Your task to perform on an android device: Open the calendar and show me this week's events? Image 0: 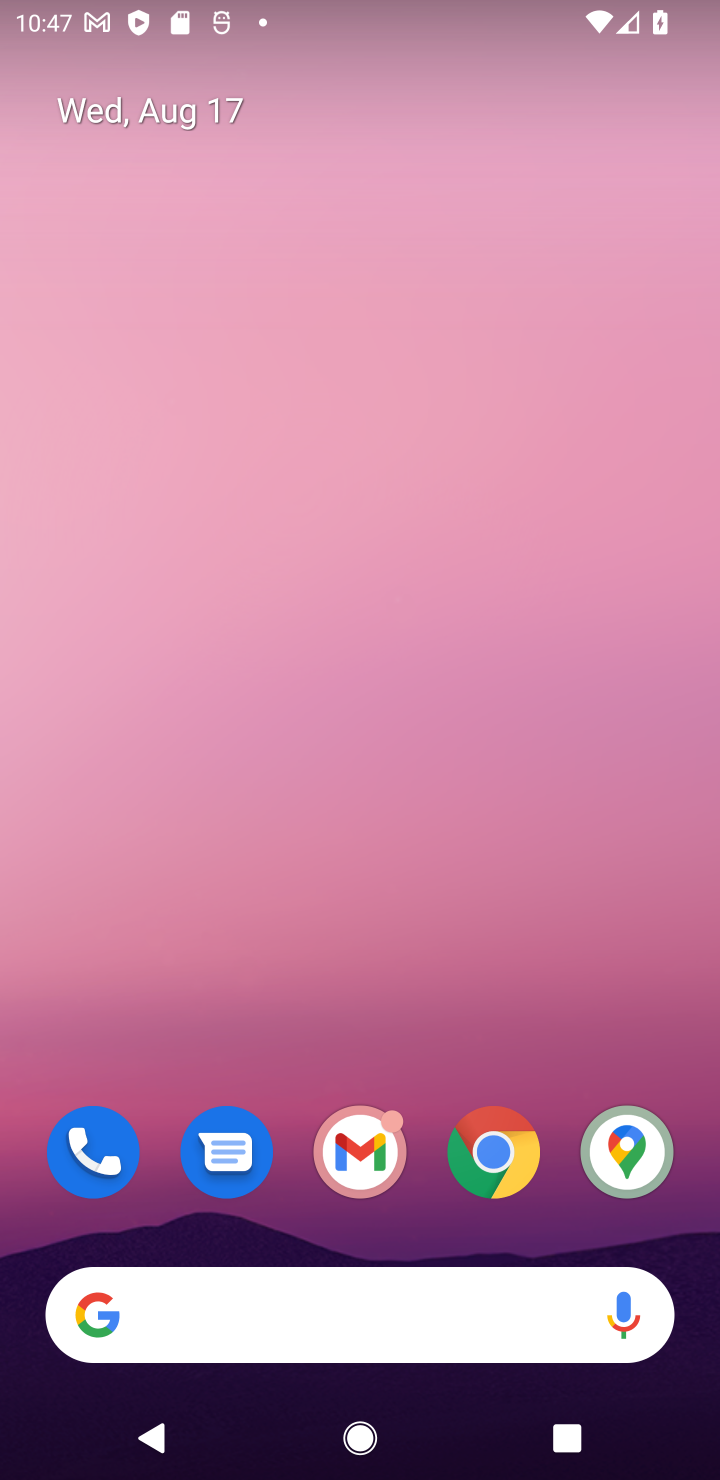
Step 0: drag from (586, 1203) to (394, 5)
Your task to perform on an android device: Open the calendar and show me this week's events? Image 1: 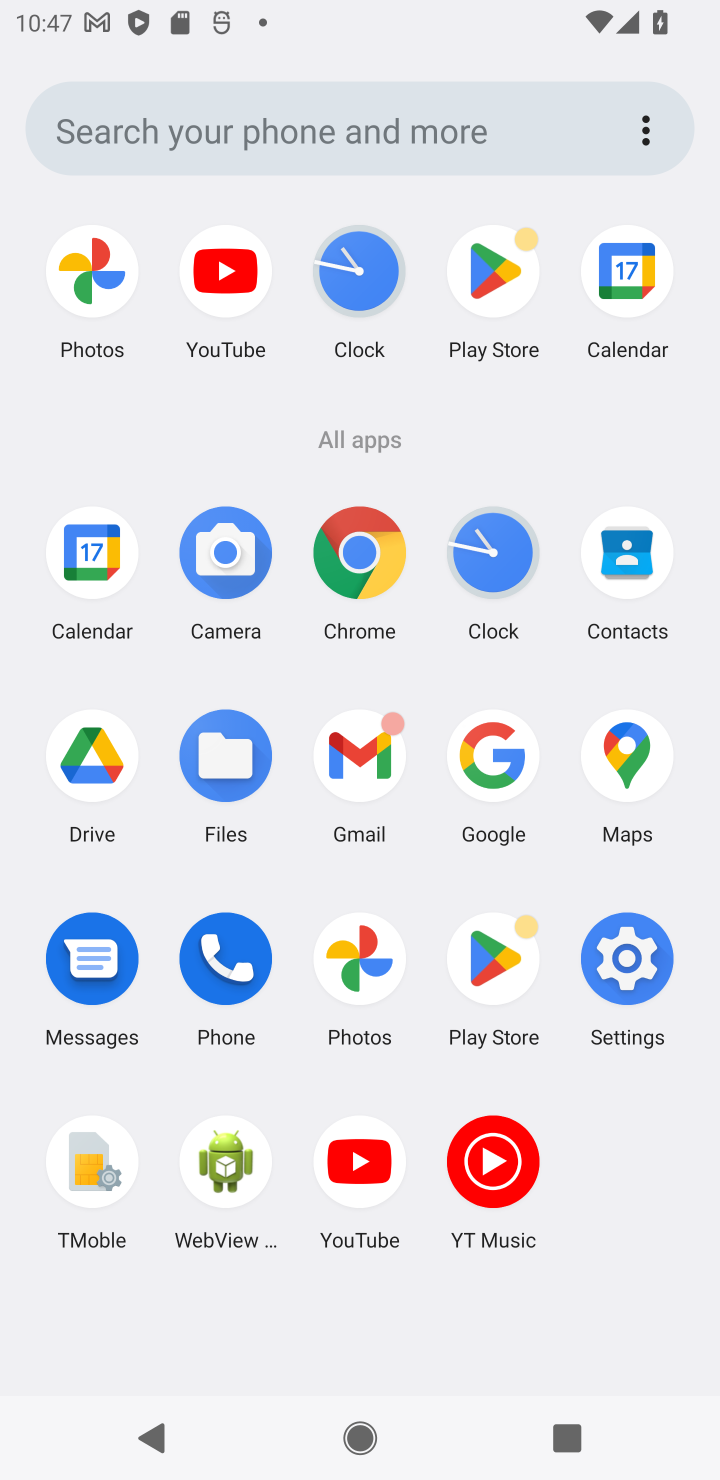
Step 1: click (97, 576)
Your task to perform on an android device: Open the calendar and show me this week's events? Image 2: 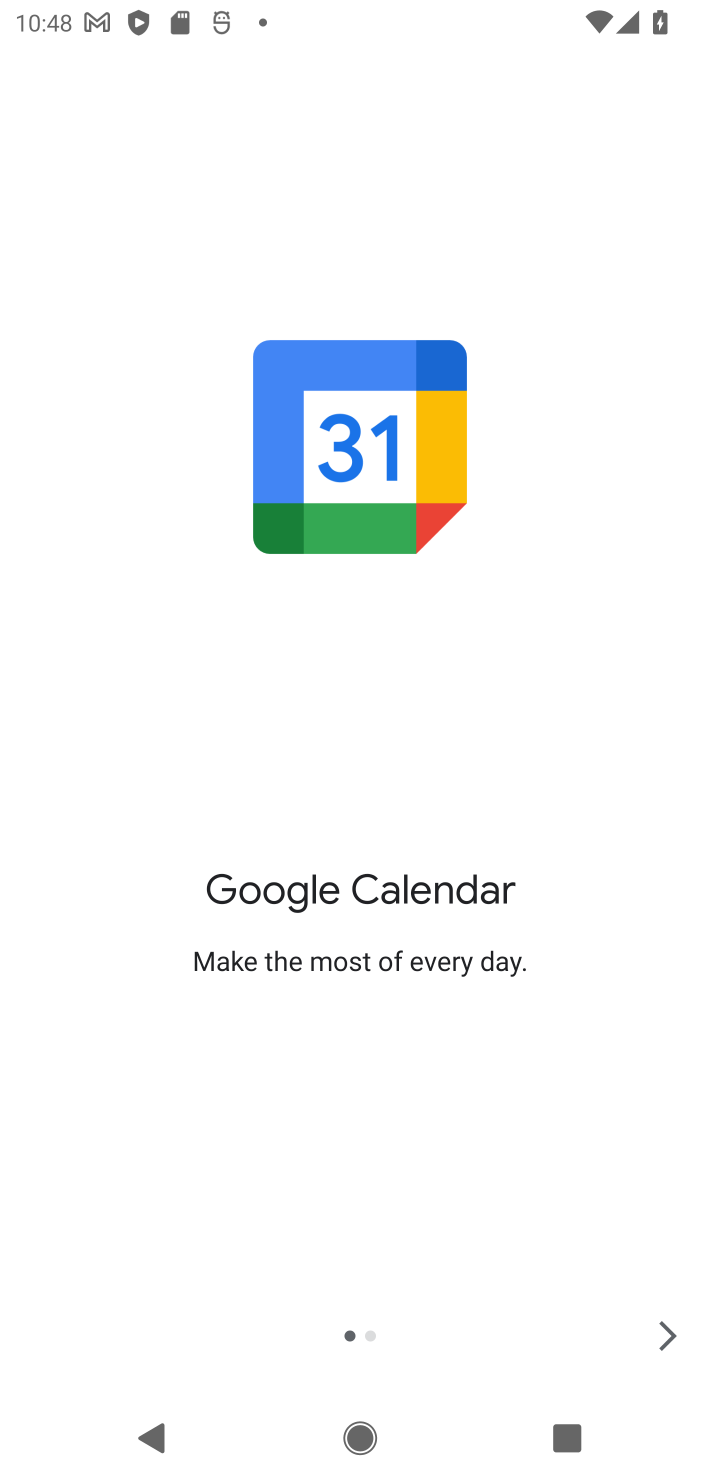
Step 2: click (675, 1332)
Your task to perform on an android device: Open the calendar and show me this week's events? Image 3: 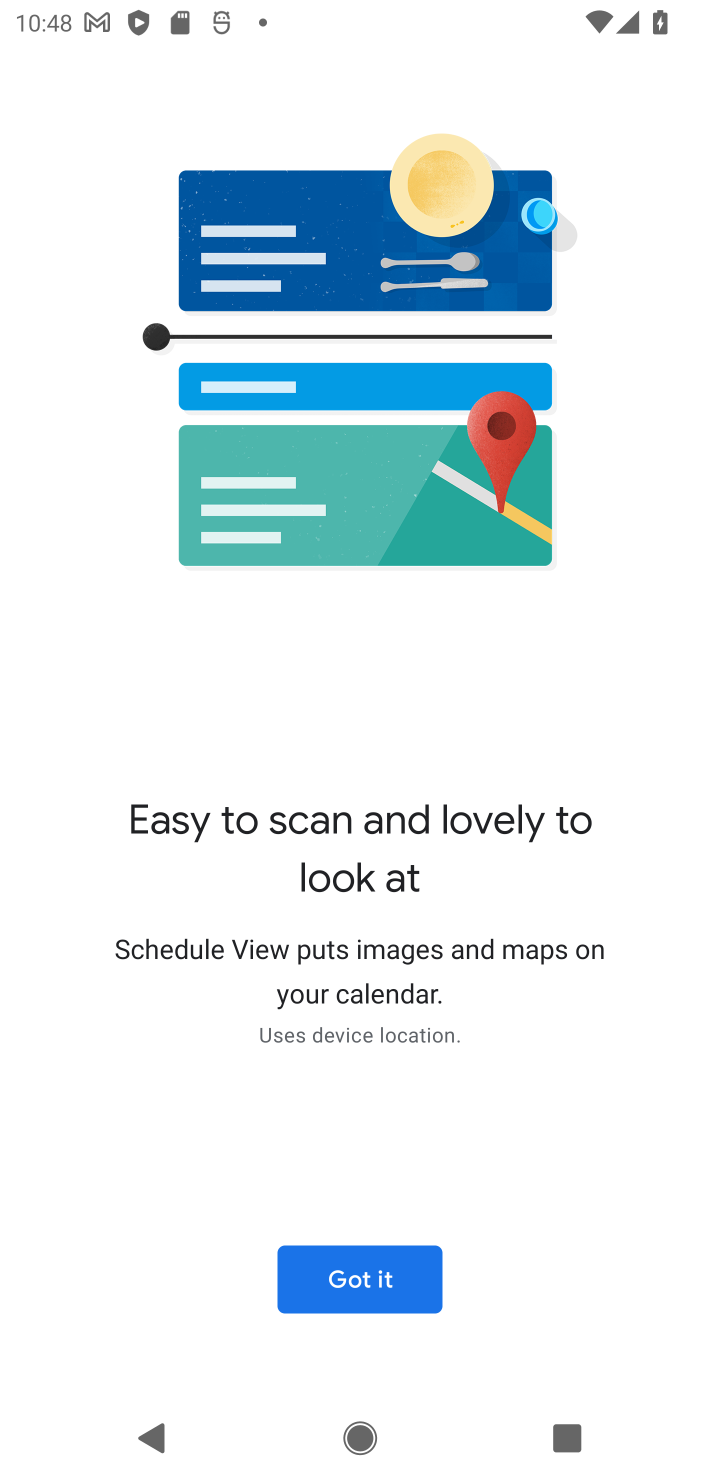
Step 3: click (673, 1330)
Your task to perform on an android device: Open the calendar and show me this week's events? Image 4: 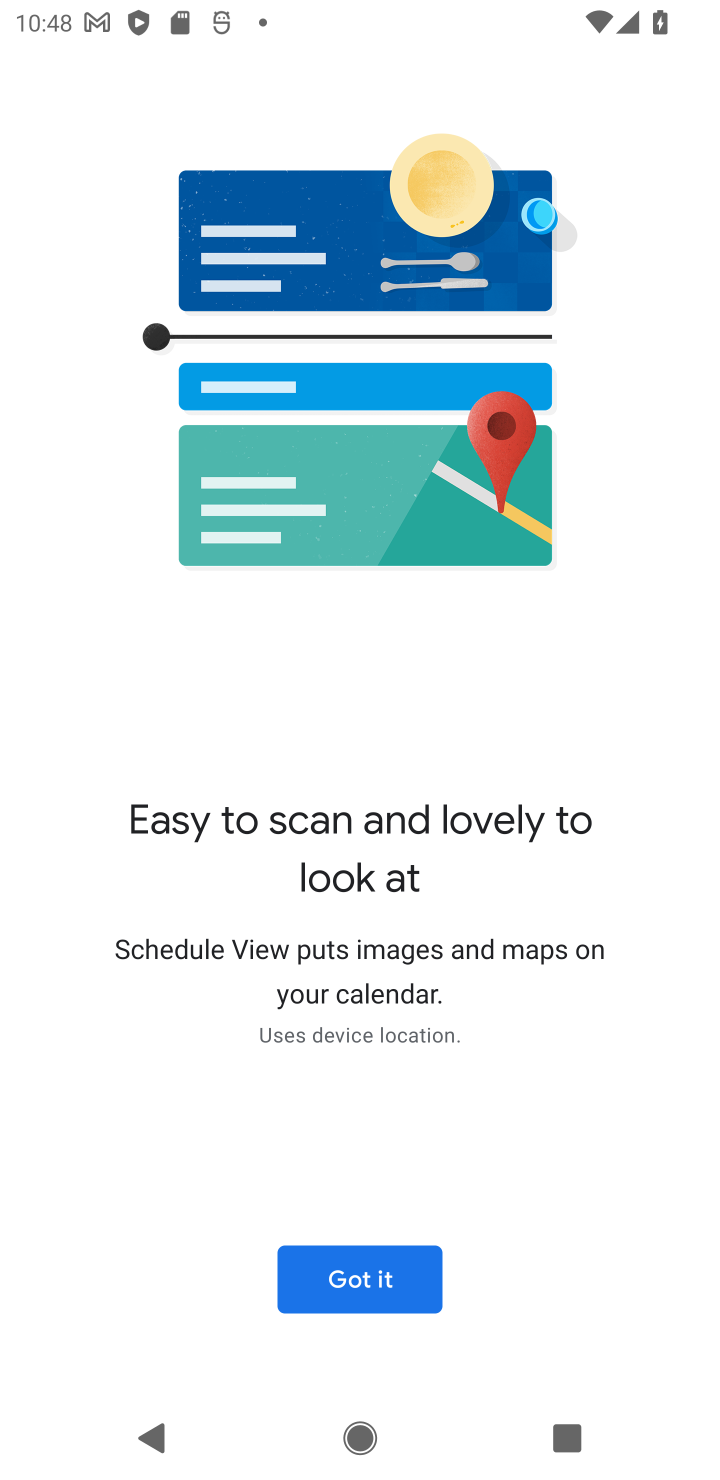
Step 4: click (364, 1259)
Your task to perform on an android device: Open the calendar and show me this week's events? Image 5: 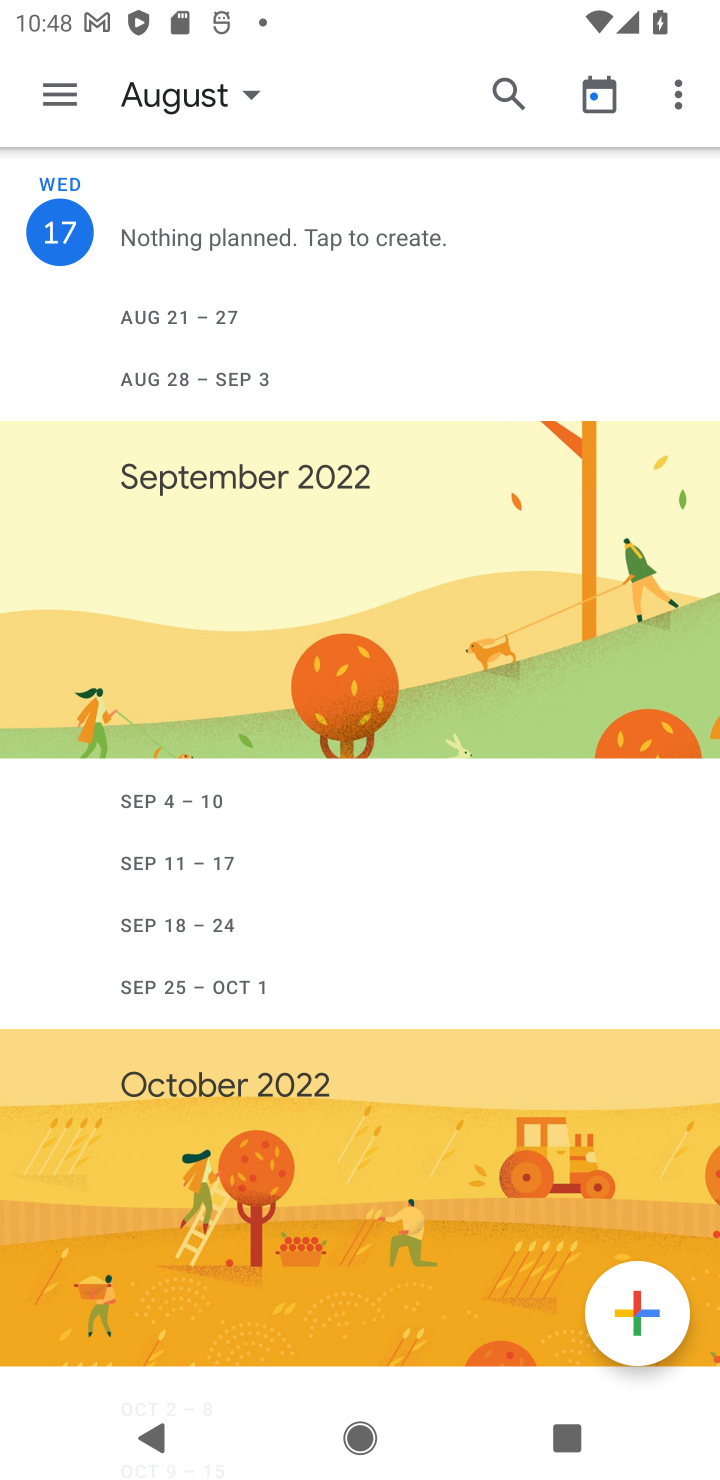
Step 5: task complete